Your task to perform on an android device: manage bookmarks in the chrome app Image 0: 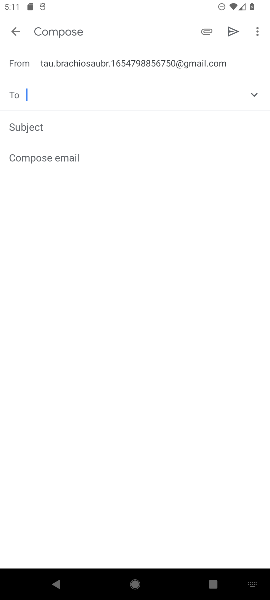
Step 0: press home button
Your task to perform on an android device: manage bookmarks in the chrome app Image 1: 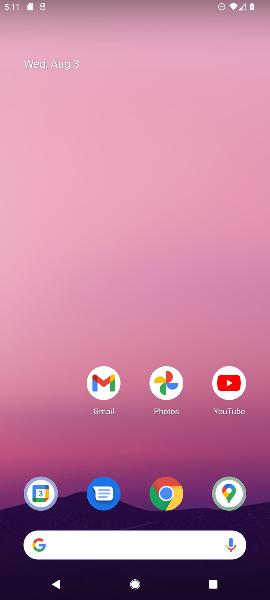
Step 1: drag from (66, 448) to (60, 91)
Your task to perform on an android device: manage bookmarks in the chrome app Image 2: 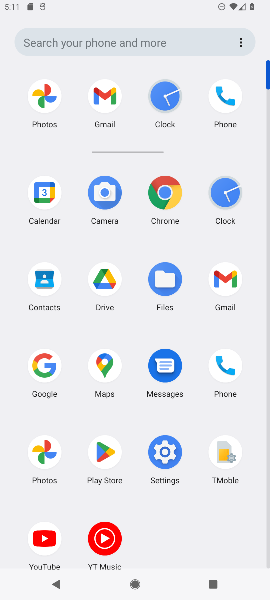
Step 2: click (170, 199)
Your task to perform on an android device: manage bookmarks in the chrome app Image 3: 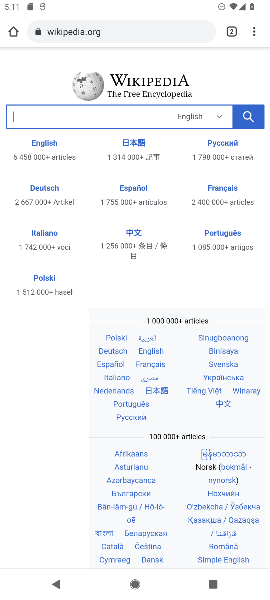
Step 3: click (255, 34)
Your task to perform on an android device: manage bookmarks in the chrome app Image 4: 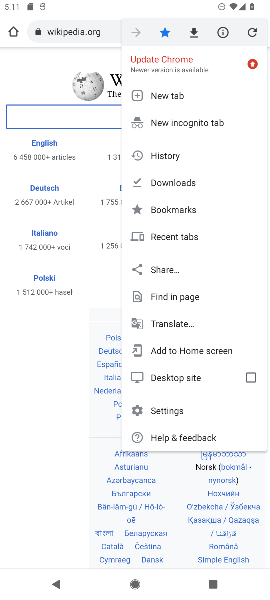
Step 4: click (189, 205)
Your task to perform on an android device: manage bookmarks in the chrome app Image 5: 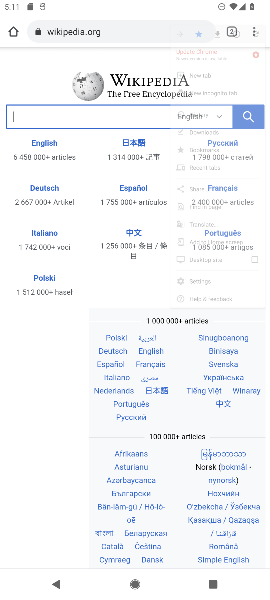
Step 5: click (176, 207)
Your task to perform on an android device: manage bookmarks in the chrome app Image 6: 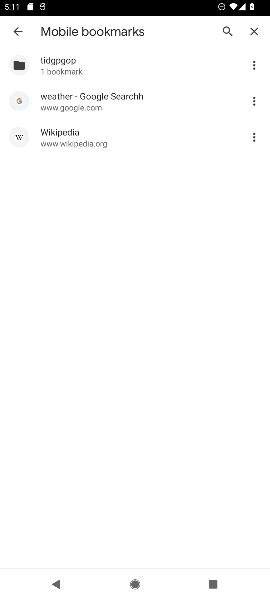
Step 6: click (257, 141)
Your task to perform on an android device: manage bookmarks in the chrome app Image 7: 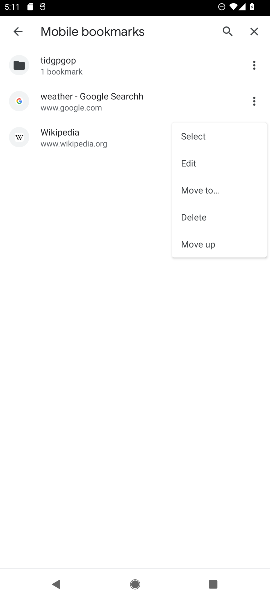
Step 7: click (193, 161)
Your task to perform on an android device: manage bookmarks in the chrome app Image 8: 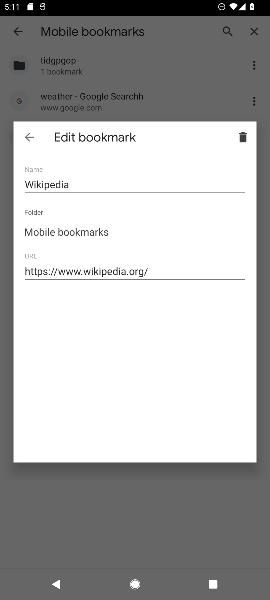
Step 8: click (91, 183)
Your task to perform on an android device: manage bookmarks in the chrome app Image 9: 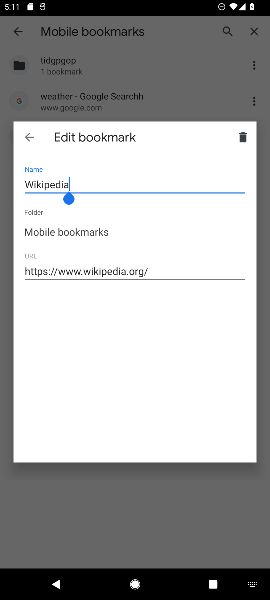
Step 9: click (102, 177)
Your task to perform on an android device: manage bookmarks in the chrome app Image 10: 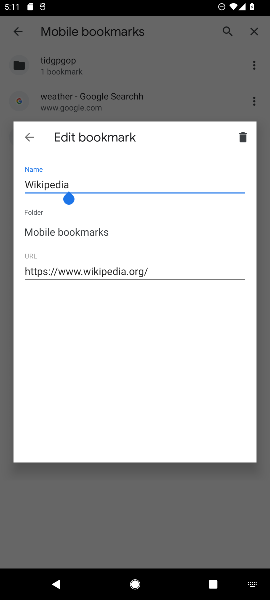
Step 10: type "a"
Your task to perform on an android device: manage bookmarks in the chrome app Image 11: 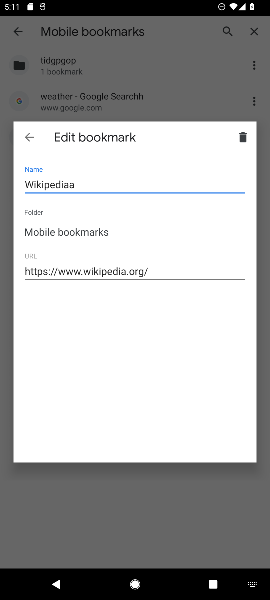
Step 11: click (26, 136)
Your task to perform on an android device: manage bookmarks in the chrome app Image 12: 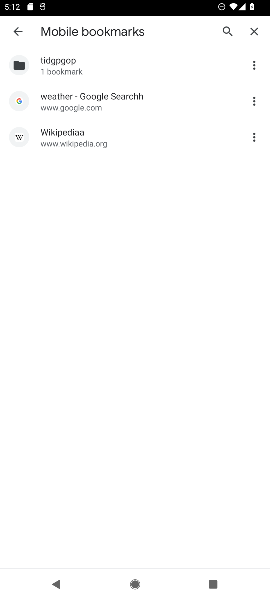
Step 12: task complete